Your task to perform on an android device: open the mobile data screen to see how much data has been used Image 0: 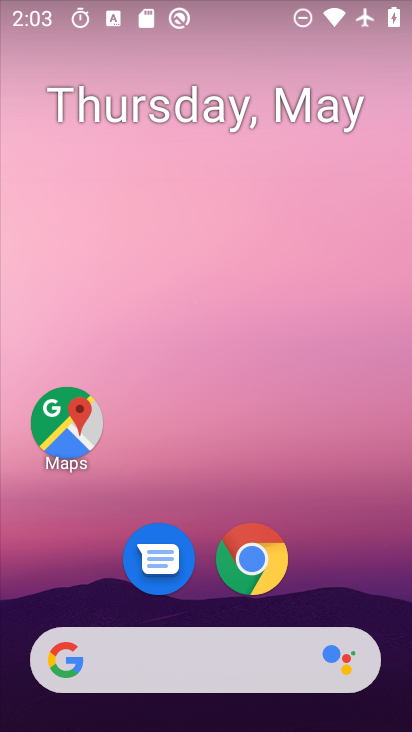
Step 0: drag from (238, 627) to (271, 425)
Your task to perform on an android device: open the mobile data screen to see how much data has been used Image 1: 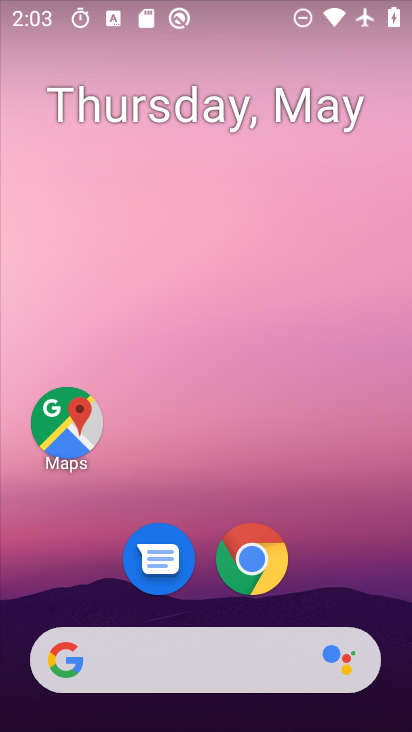
Step 1: drag from (257, 544) to (298, 175)
Your task to perform on an android device: open the mobile data screen to see how much data has been used Image 2: 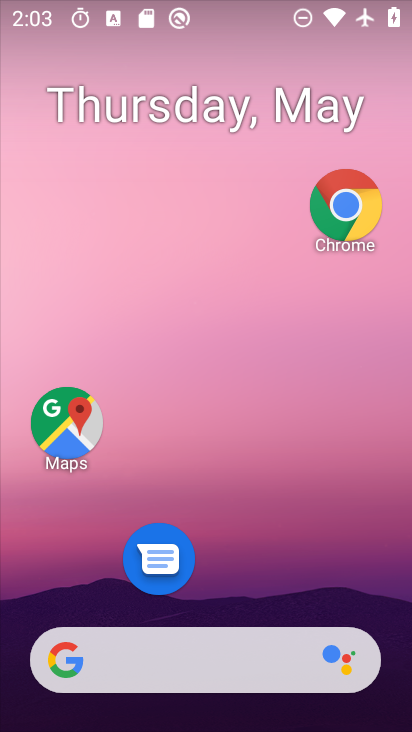
Step 2: drag from (270, 613) to (340, 201)
Your task to perform on an android device: open the mobile data screen to see how much data has been used Image 3: 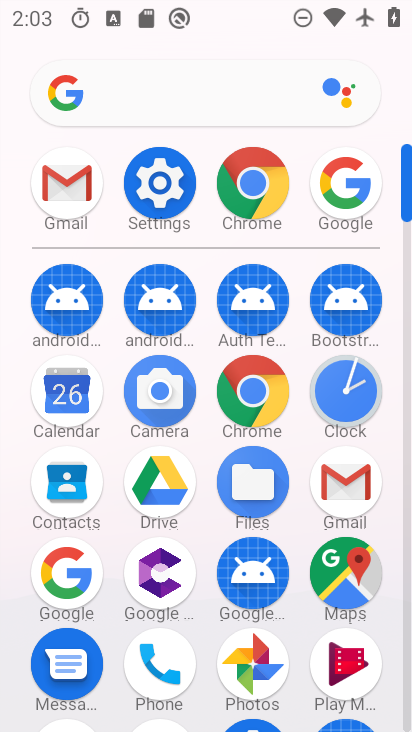
Step 3: drag from (259, 443) to (287, 294)
Your task to perform on an android device: open the mobile data screen to see how much data has been used Image 4: 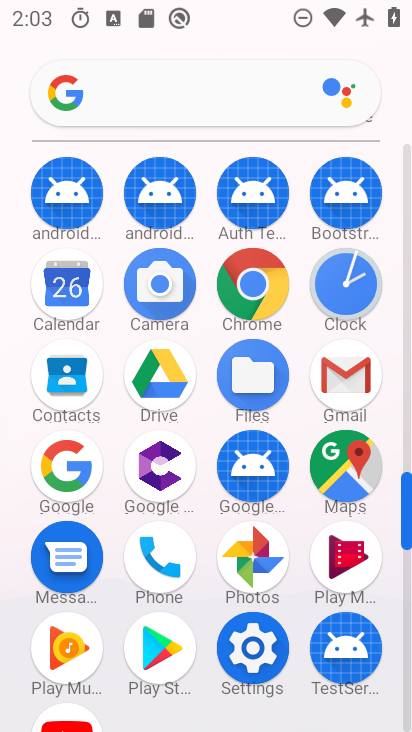
Step 4: drag from (255, 507) to (326, 143)
Your task to perform on an android device: open the mobile data screen to see how much data has been used Image 5: 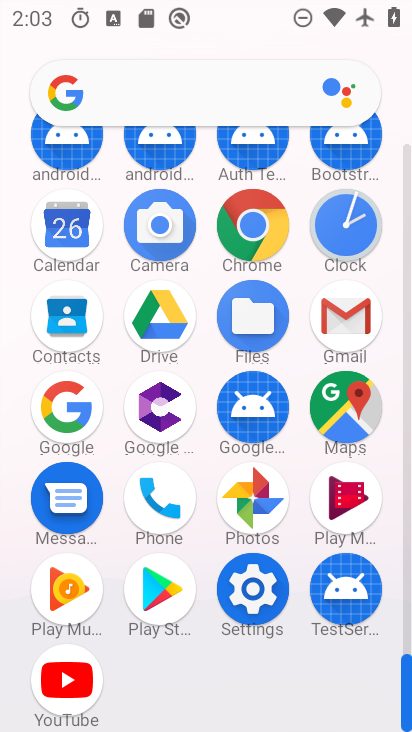
Step 5: click (260, 617)
Your task to perform on an android device: open the mobile data screen to see how much data has been used Image 6: 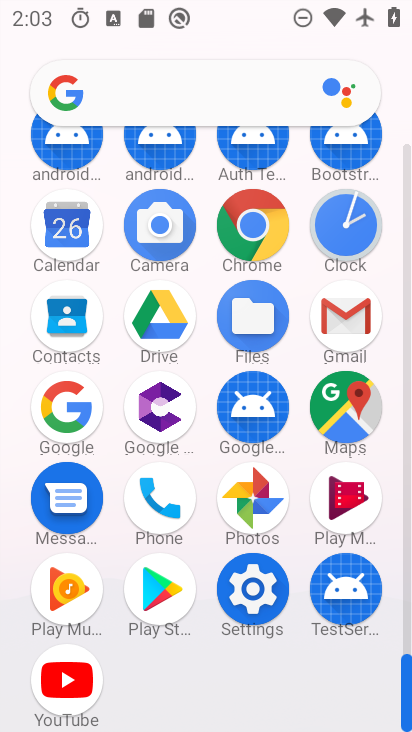
Step 6: click (260, 617)
Your task to perform on an android device: open the mobile data screen to see how much data has been used Image 7: 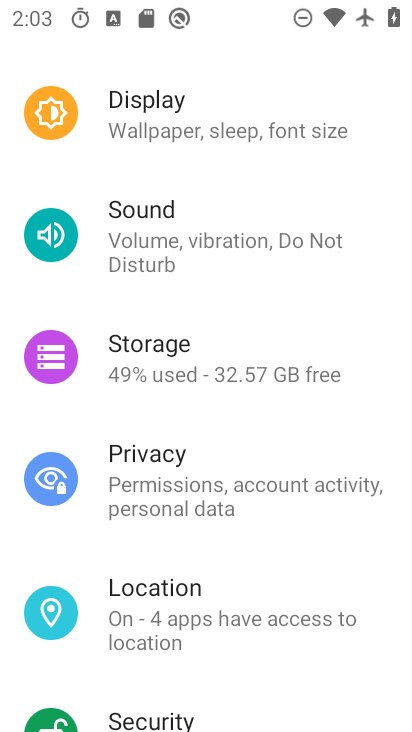
Step 7: drag from (259, 290) to (168, 568)
Your task to perform on an android device: open the mobile data screen to see how much data has been used Image 8: 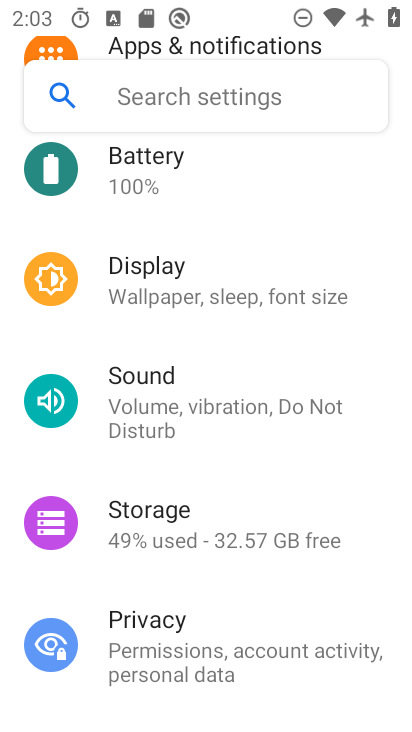
Step 8: drag from (167, 173) to (200, 618)
Your task to perform on an android device: open the mobile data screen to see how much data has been used Image 9: 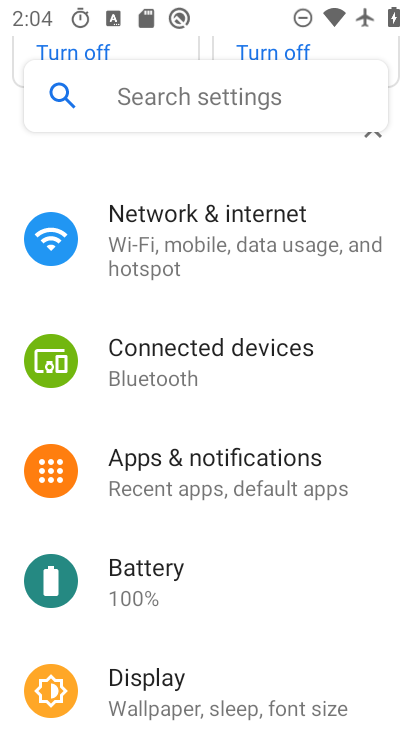
Step 9: click (244, 250)
Your task to perform on an android device: open the mobile data screen to see how much data has been used Image 10: 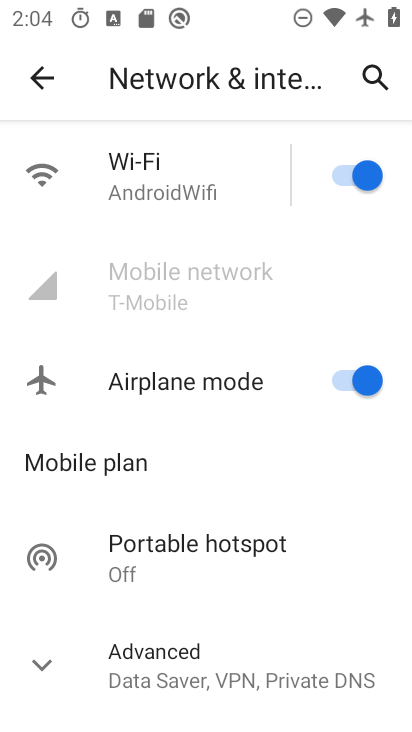
Step 10: click (223, 291)
Your task to perform on an android device: open the mobile data screen to see how much data has been used Image 11: 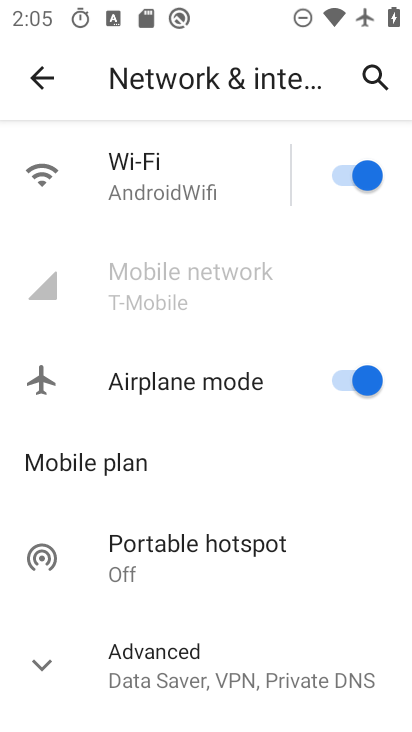
Step 11: task complete